Your task to perform on an android device: visit the assistant section in the google photos Image 0: 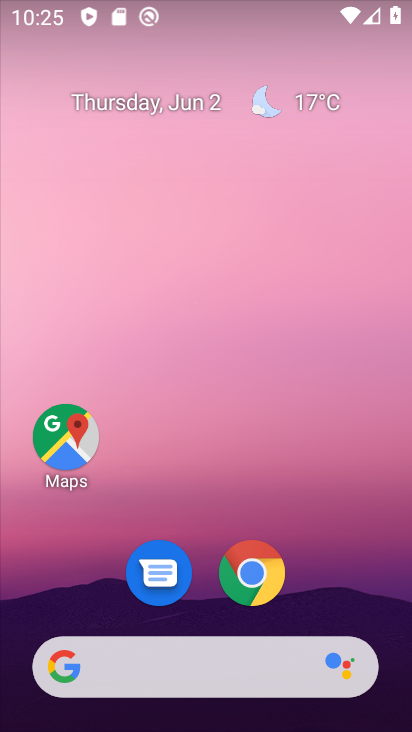
Step 0: task complete